Your task to perform on an android device: Go to accessibility settings Image 0: 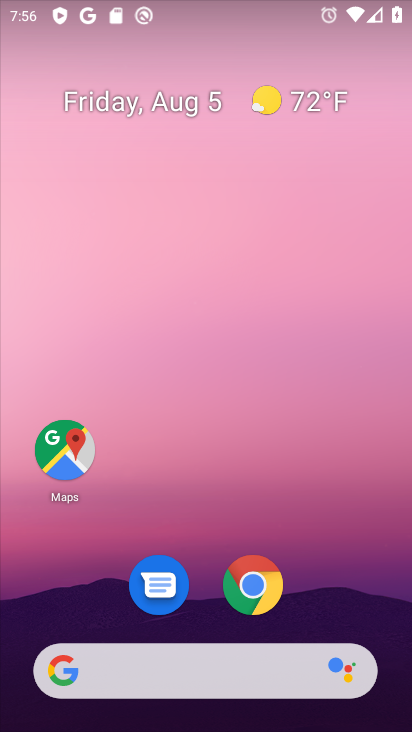
Step 0: drag from (325, 462) to (337, 46)
Your task to perform on an android device: Go to accessibility settings Image 1: 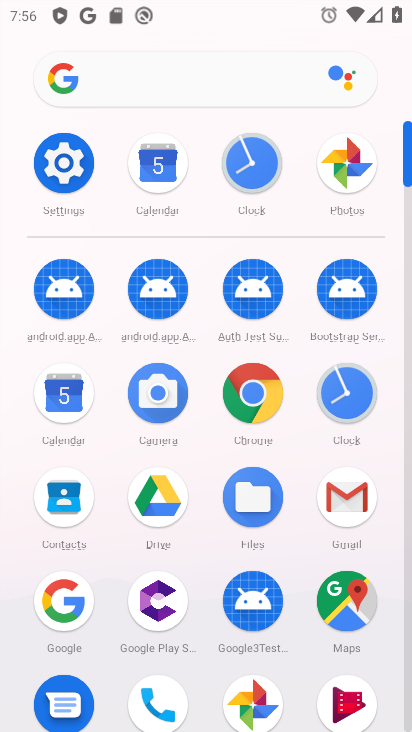
Step 1: click (61, 160)
Your task to perform on an android device: Go to accessibility settings Image 2: 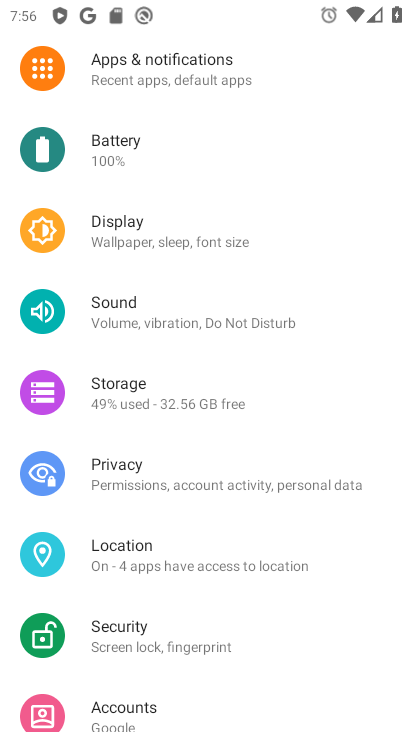
Step 2: drag from (233, 499) to (222, 167)
Your task to perform on an android device: Go to accessibility settings Image 3: 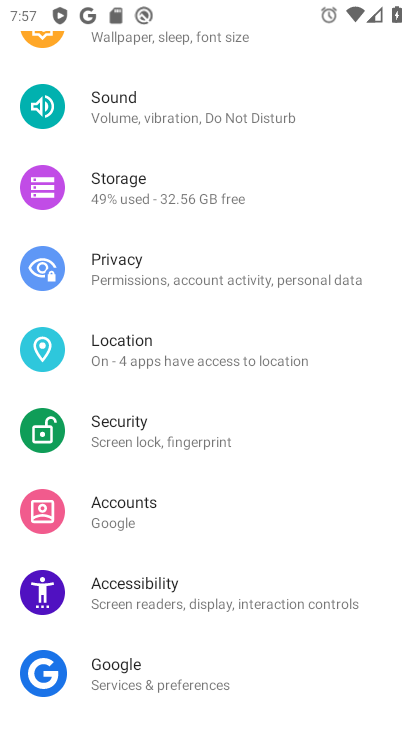
Step 3: click (238, 589)
Your task to perform on an android device: Go to accessibility settings Image 4: 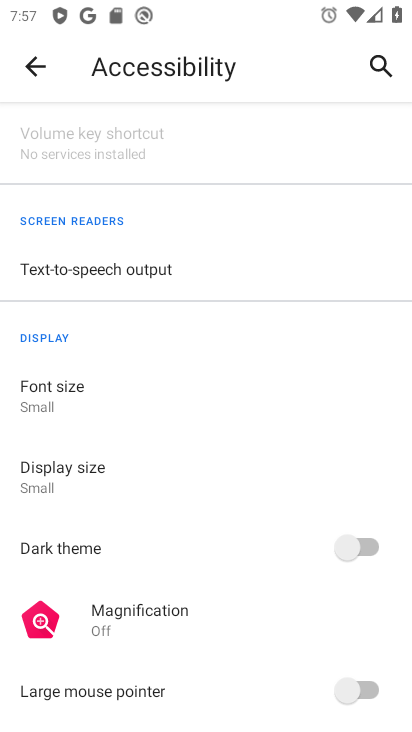
Step 4: task complete